Your task to perform on an android device: remove spam from my inbox in the gmail app Image 0: 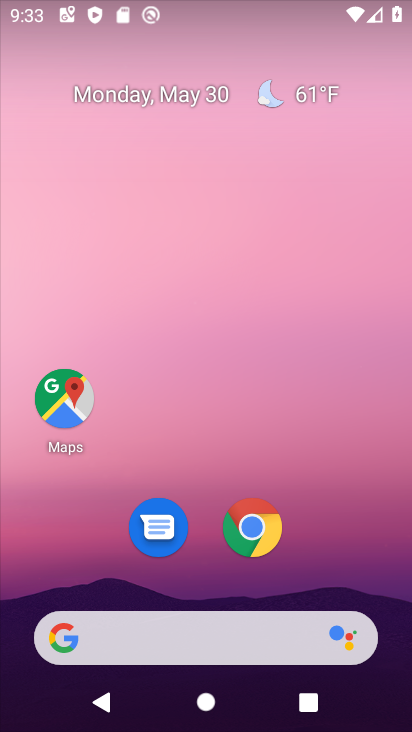
Step 0: drag from (325, 586) to (298, 21)
Your task to perform on an android device: remove spam from my inbox in the gmail app Image 1: 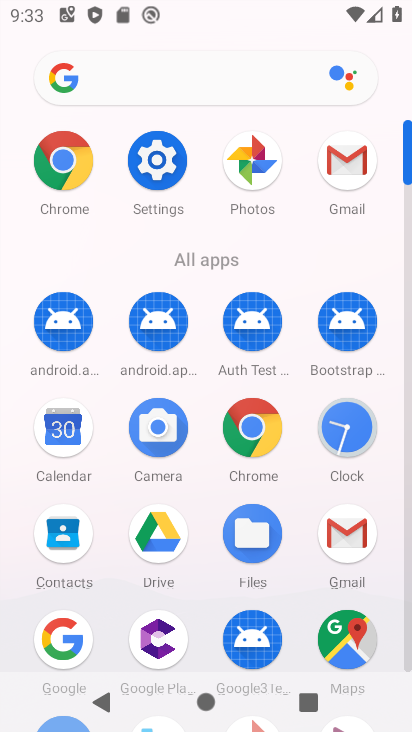
Step 1: click (339, 531)
Your task to perform on an android device: remove spam from my inbox in the gmail app Image 2: 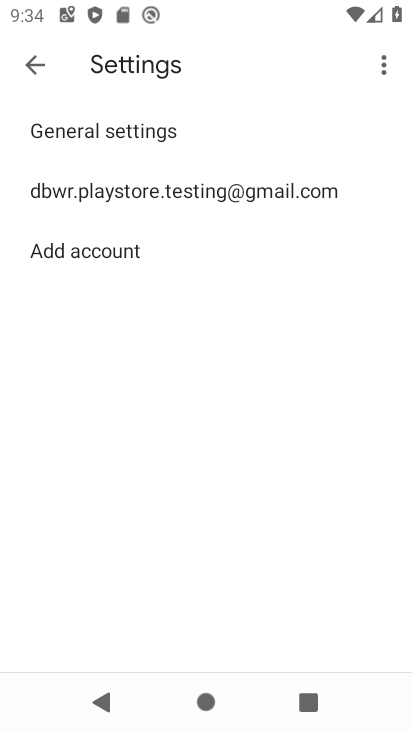
Step 2: click (26, 55)
Your task to perform on an android device: remove spam from my inbox in the gmail app Image 3: 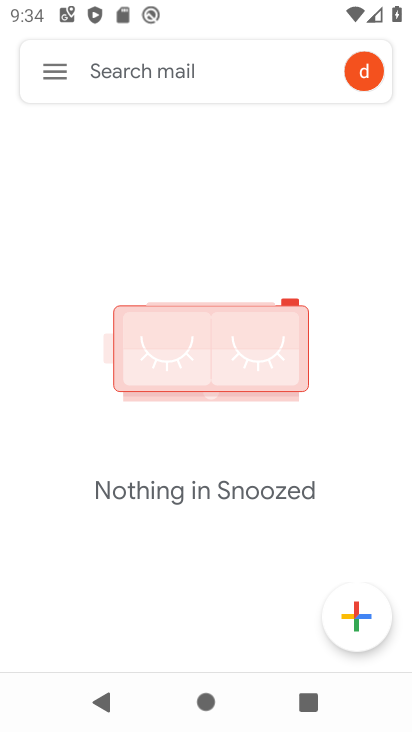
Step 3: click (46, 78)
Your task to perform on an android device: remove spam from my inbox in the gmail app Image 4: 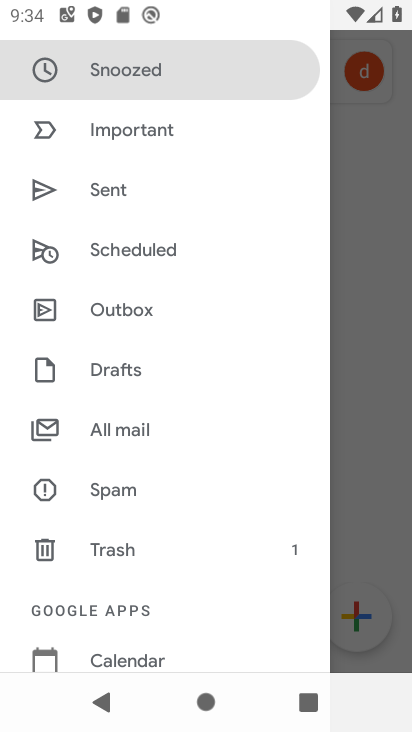
Step 4: click (102, 480)
Your task to perform on an android device: remove spam from my inbox in the gmail app Image 5: 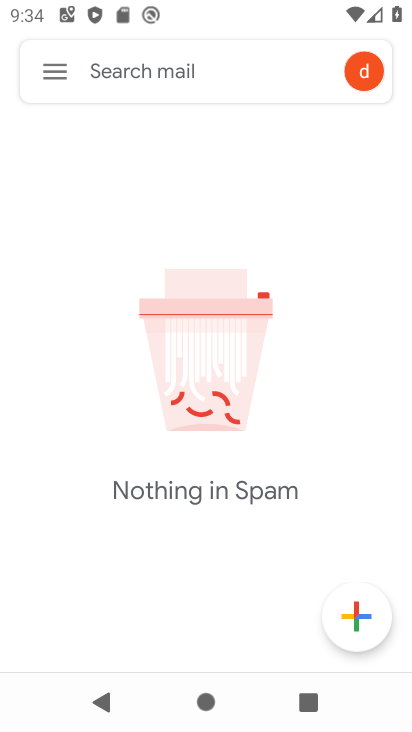
Step 5: task complete